Your task to perform on an android device: turn off priority inbox in the gmail app Image 0: 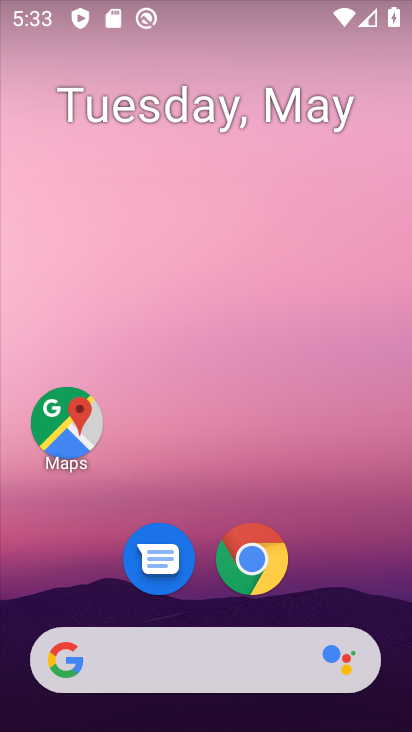
Step 0: drag from (180, 607) to (259, 125)
Your task to perform on an android device: turn off priority inbox in the gmail app Image 1: 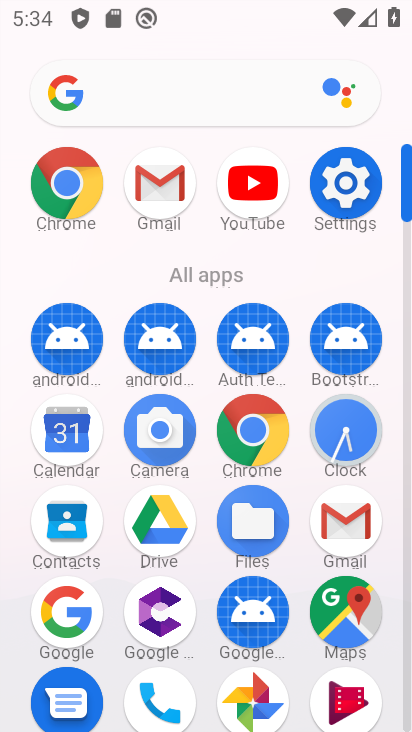
Step 1: click (336, 517)
Your task to perform on an android device: turn off priority inbox in the gmail app Image 2: 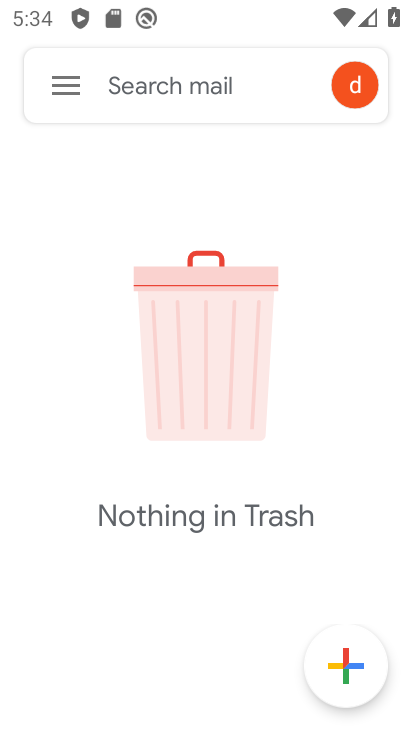
Step 2: click (71, 86)
Your task to perform on an android device: turn off priority inbox in the gmail app Image 3: 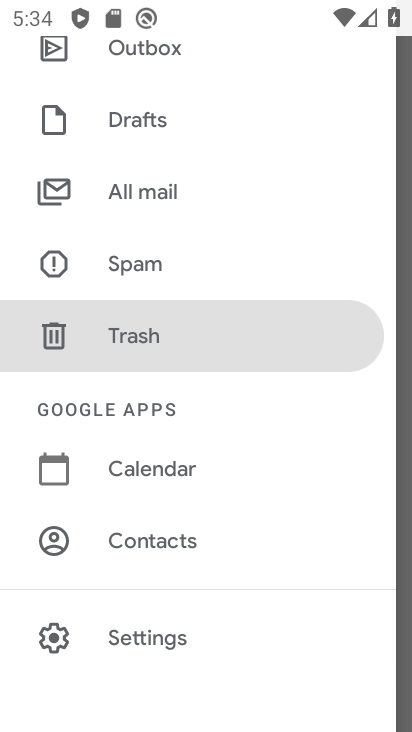
Step 3: drag from (162, 172) to (159, 425)
Your task to perform on an android device: turn off priority inbox in the gmail app Image 4: 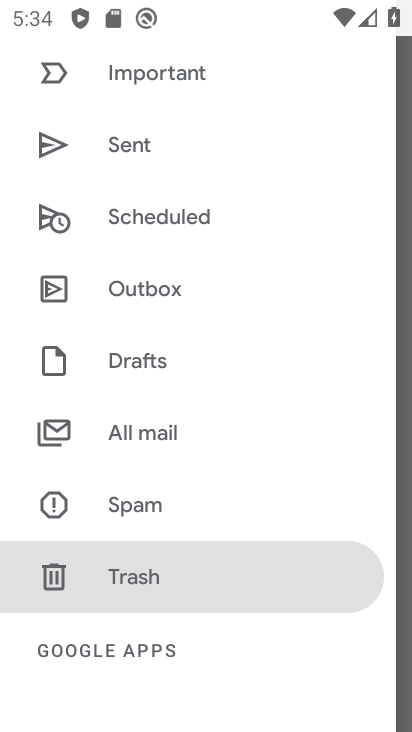
Step 4: drag from (163, 228) to (163, 460)
Your task to perform on an android device: turn off priority inbox in the gmail app Image 5: 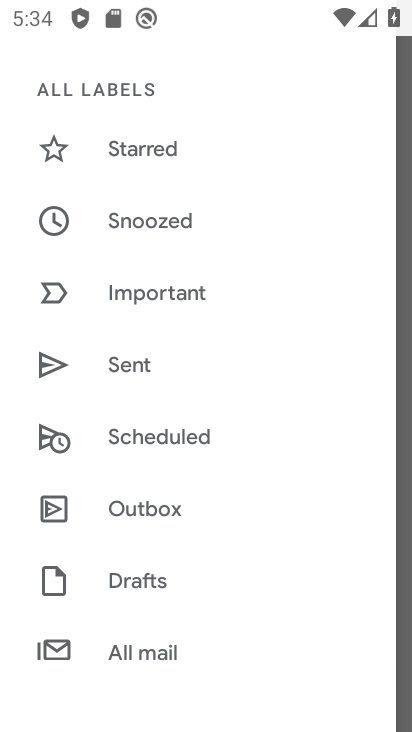
Step 5: drag from (220, 264) to (207, 455)
Your task to perform on an android device: turn off priority inbox in the gmail app Image 6: 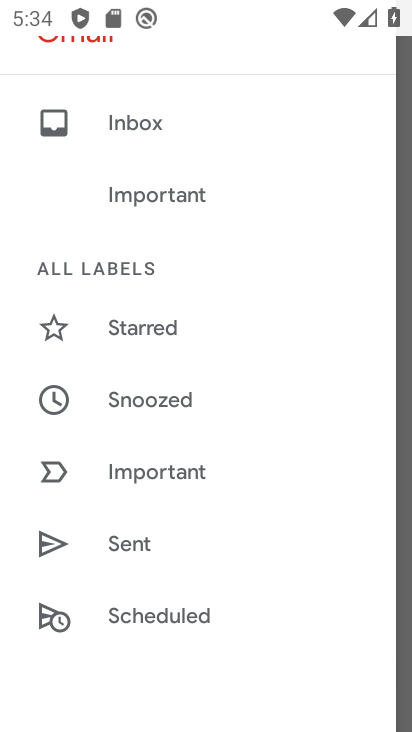
Step 6: drag from (192, 393) to (198, 597)
Your task to perform on an android device: turn off priority inbox in the gmail app Image 7: 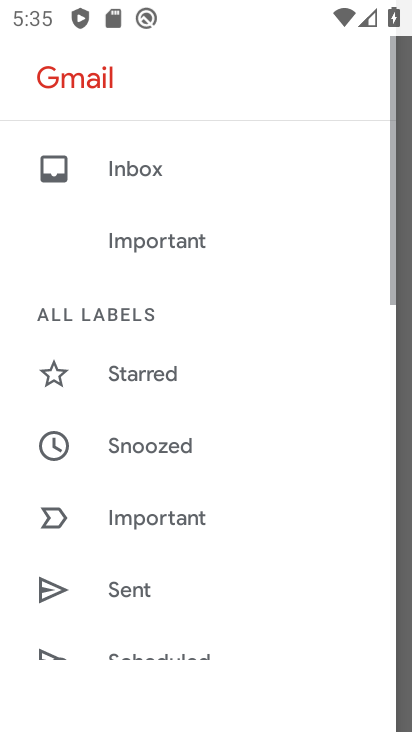
Step 7: drag from (171, 580) to (178, 260)
Your task to perform on an android device: turn off priority inbox in the gmail app Image 8: 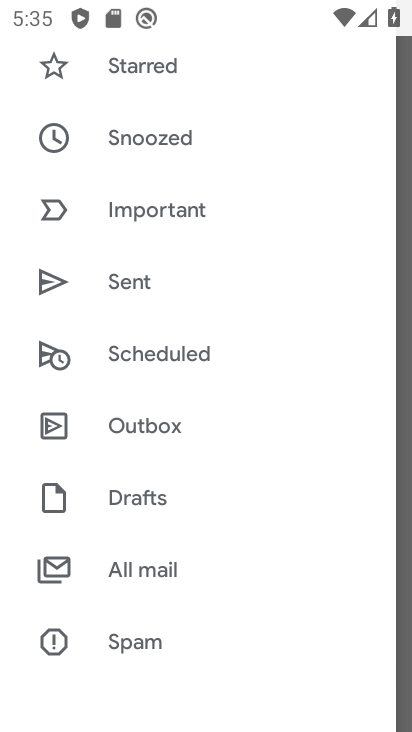
Step 8: drag from (159, 570) to (178, 207)
Your task to perform on an android device: turn off priority inbox in the gmail app Image 9: 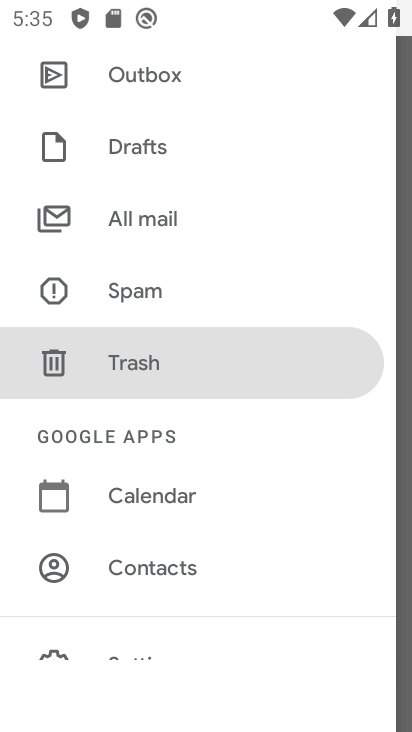
Step 9: drag from (169, 500) to (186, 184)
Your task to perform on an android device: turn off priority inbox in the gmail app Image 10: 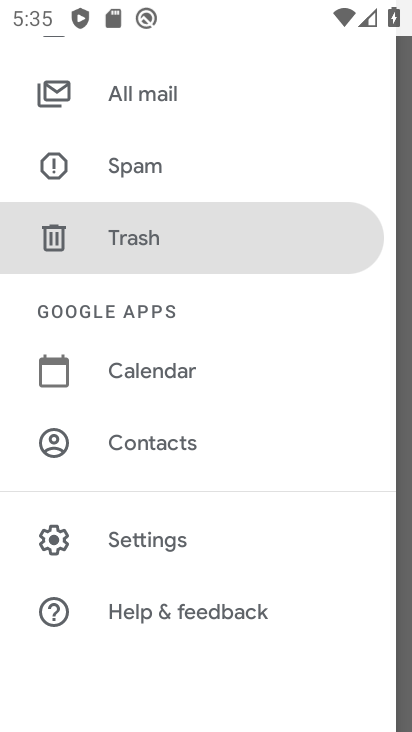
Step 10: click (136, 545)
Your task to perform on an android device: turn off priority inbox in the gmail app Image 11: 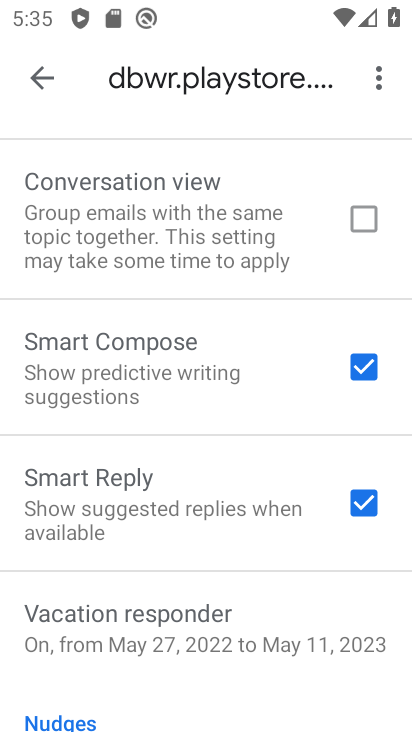
Step 11: drag from (168, 307) to (179, 570)
Your task to perform on an android device: turn off priority inbox in the gmail app Image 12: 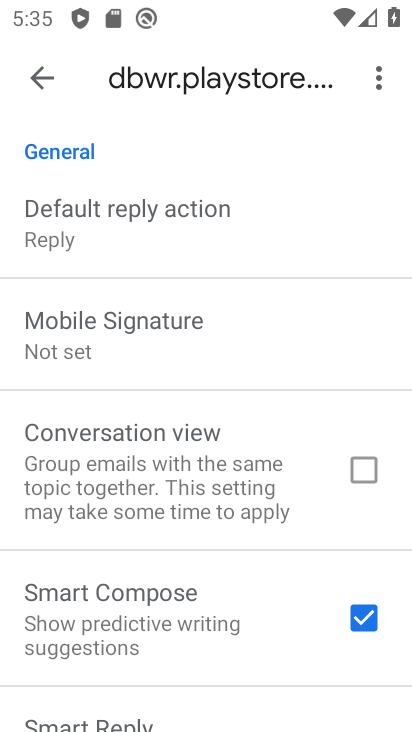
Step 12: drag from (223, 327) to (208, 605)
Your task to perform on an android device: turn off priority inbox in the gmail app Image 13: 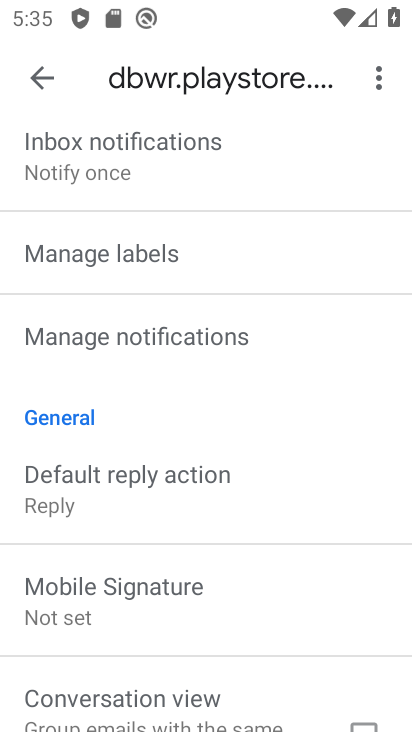
Step 13: drag from (222, 374) to (211, 685)
Your task to perform on an android device: turn off priority inbox in the gmail app Image 14: 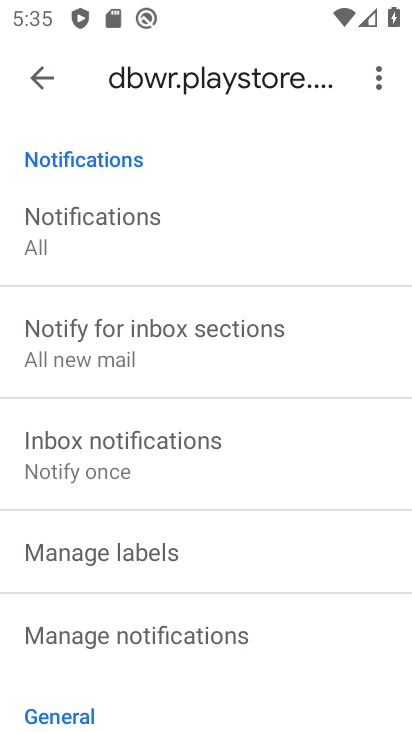
Step 14: drag from (159, 360) to (172, 542)
Your task to perform on an android device: turn off priority inbox in the gmail app Image 15: 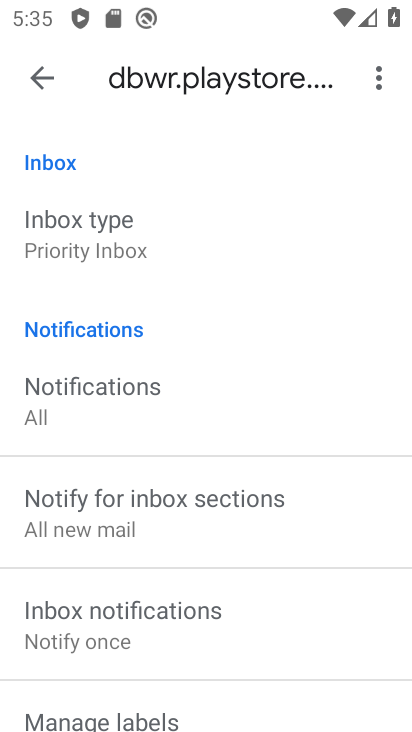
Step 15: drag from (239, 359) to (230, 539)
Your task to perform on an android device: turn off priority inbox in the gmail app Image 16: 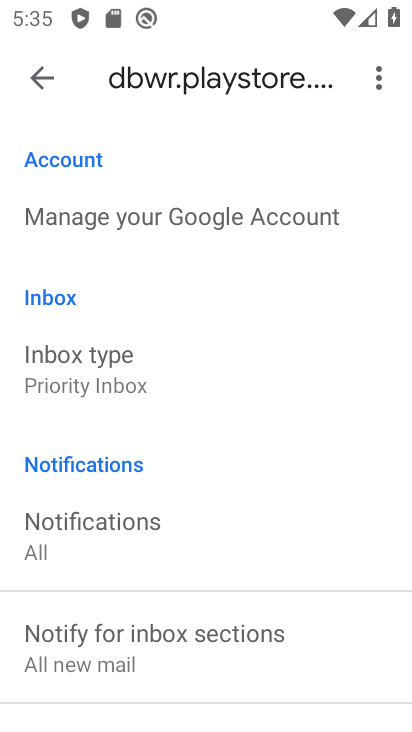
Step 16: click (83, 383)
Your task to perform on an android device: turn off priority inbox in the gmail app Image 17: 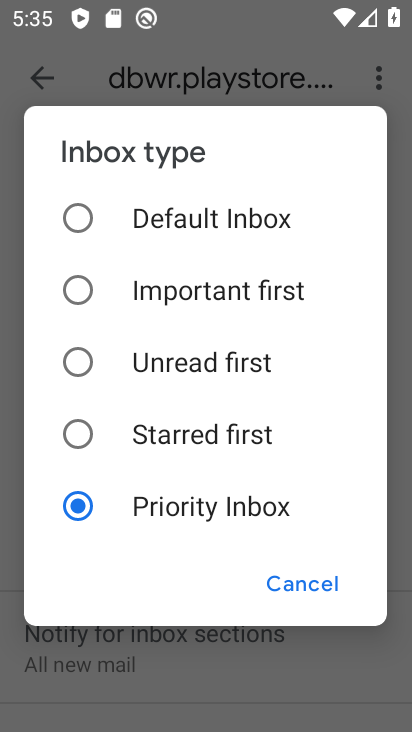
Step 17: click (73, 219)
Your task to perform on an android device: turn off priority inbox in the gmail app Image 18: 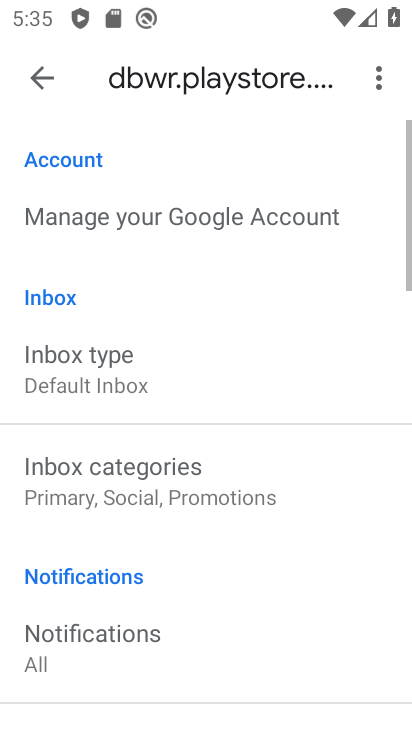
Step 18: task complete